Your task to perform on an android device: turn on sleep mode Image 0: 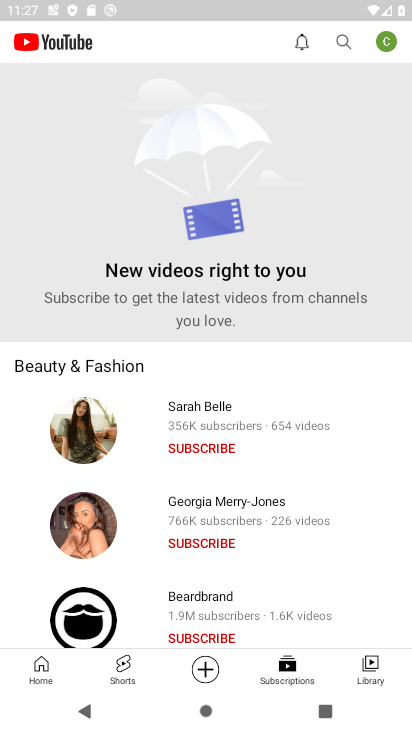
Step 0: press home button
Your task to perform on an android device: turn on sleep mode Image 1: 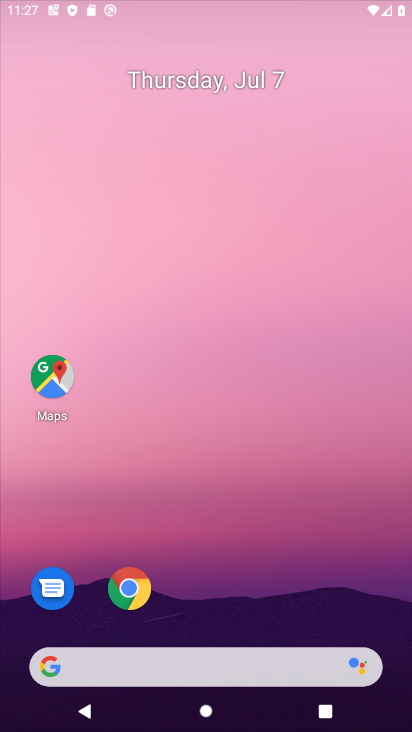
Step 1: drag from (247, 590) to (272, 53)
Your task to perform on an android device: turn on sleep mode Image 2: 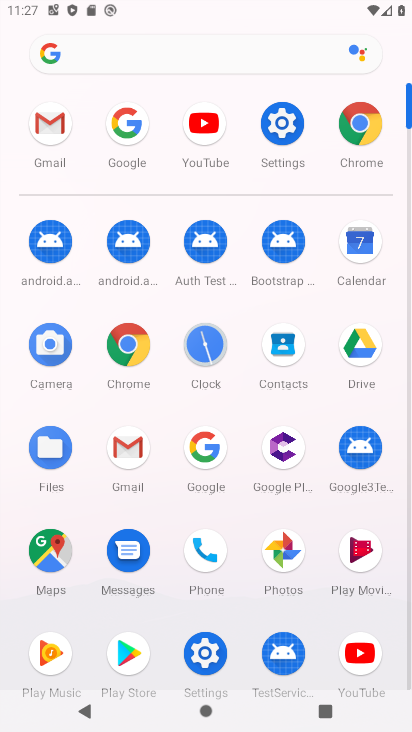
Step 2: click (279, 123)
Your task to perform on an android device: turn on sleep mode Image 3: 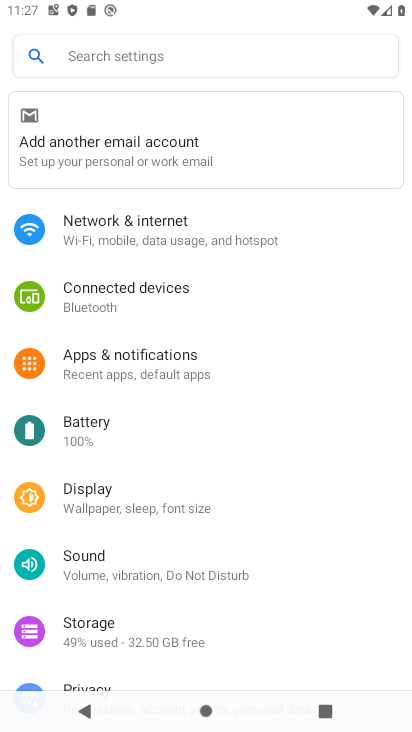
Step 3: click (120, 494)
Your task to perform on an android device: turn on sleep mode Image 4: 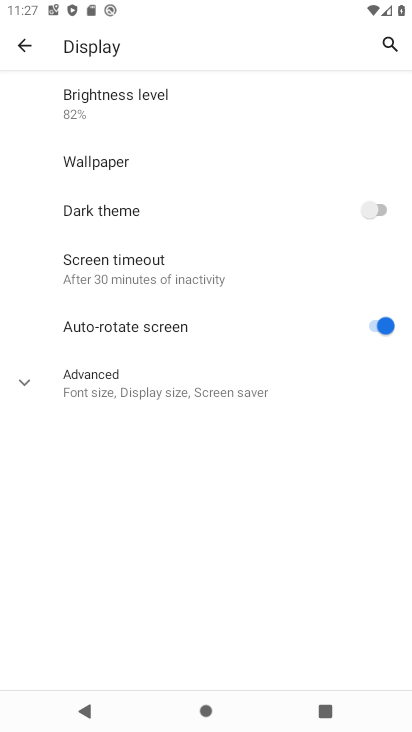
Step 4: click (178, 263)
Your task to perform on an android device: turn on sleep mode Image 5: 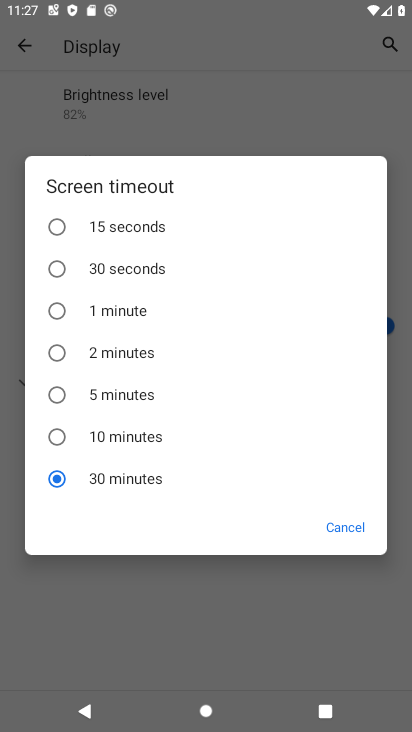
Step 5: task complete